Your task to perform on an android device: change the clock display to show seconds Image 0: 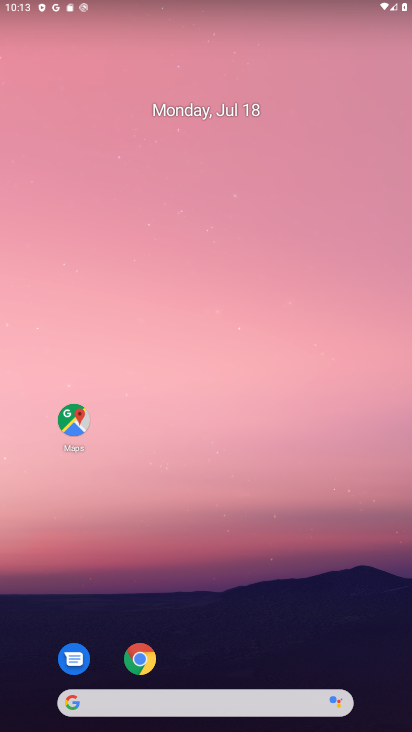
Step 0: drag from (214, 598) to (185, 41)
Your task to perform on an android device: change the clock display to show seconds Image 1: 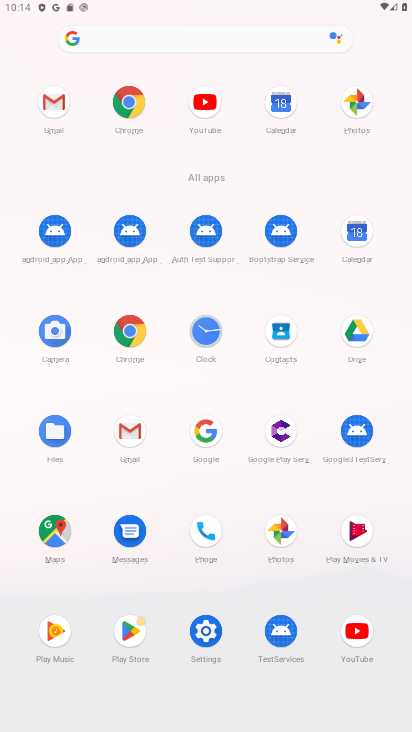
Step 1: click (210, 325)
Your task to perform on an android device: change the clock display to show seconds Image 2: 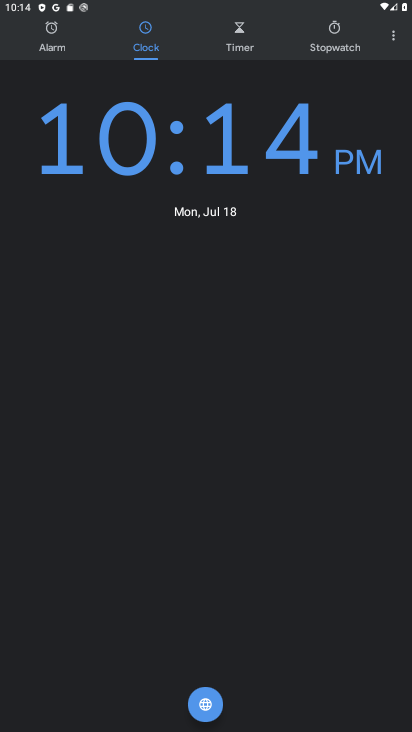
Step 2: click (397, 45)
Your task to perform on an android device: change the clock display to show seconds Image 3: 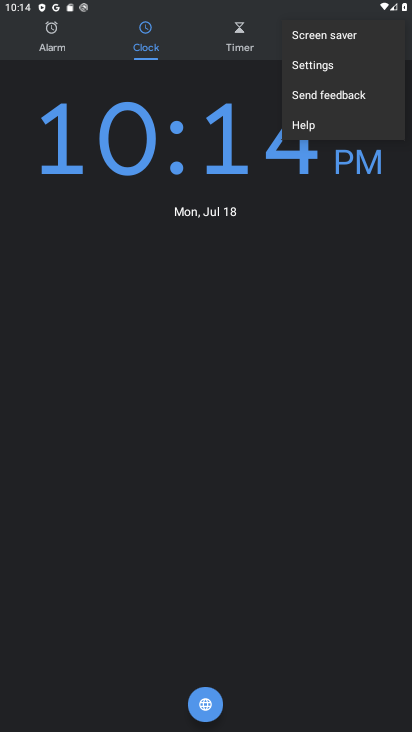
Step 3: click (332, 72)
Your task to perform on an android device: change the clock display to show seconds Image 4: 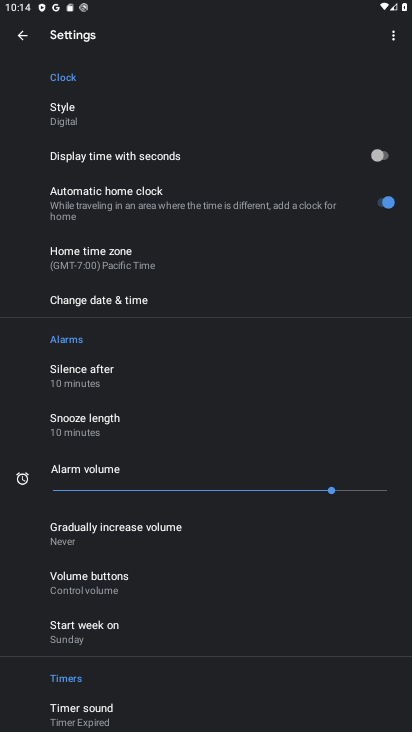
Step 4: click (69, 113)
Your task to perform on an android device: change the clock display to show seconds Image 5: 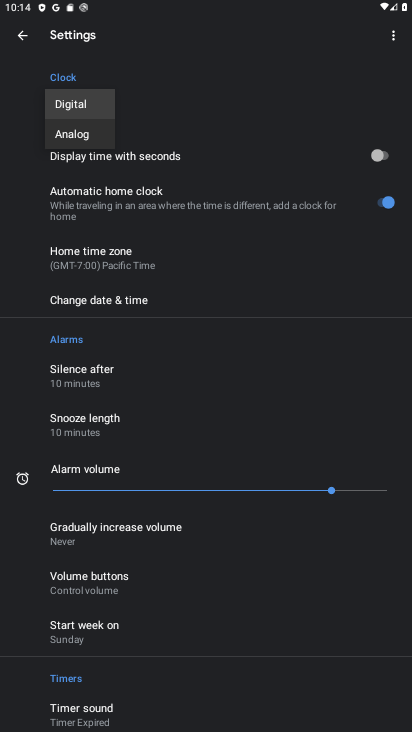
Step 5: click (74, 135)
Your task to perform on an android device: change the clock display to show seconds Image 6: 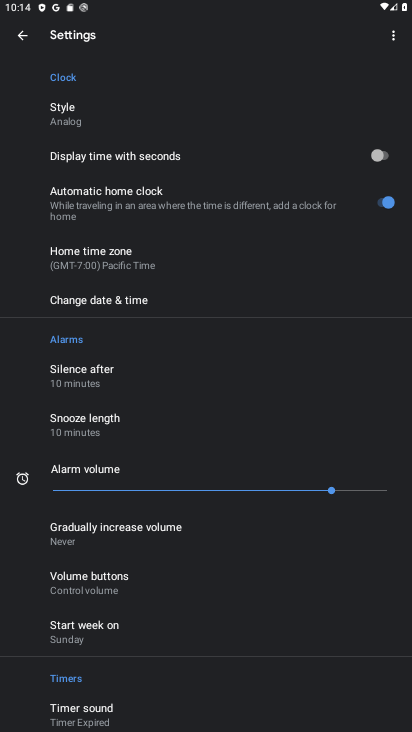
Step 6: click (367, 152)
Your task to perform on an android device: change the clock display to show seconds Image 7: 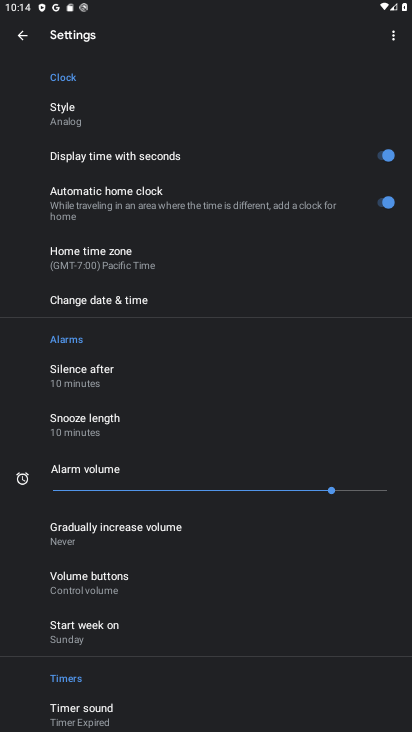
Step 7: task complete